Your task to perform on an android device: Turn off the flashlight Image 0: 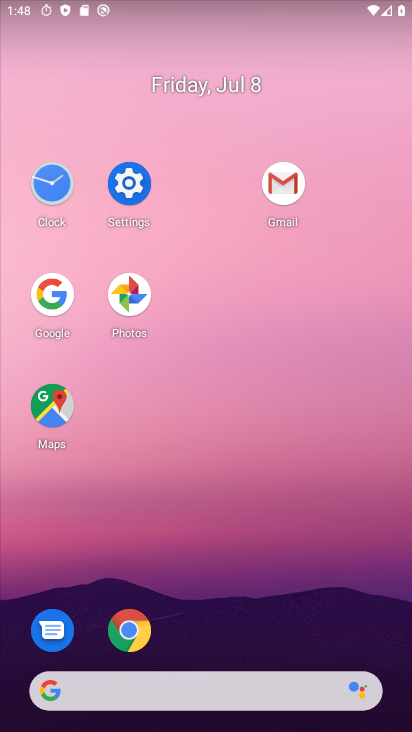
Step 0: drag from (329, 3) to (352, 485)
Your task to perform on an android device: Turn off the flashlight Image 1: 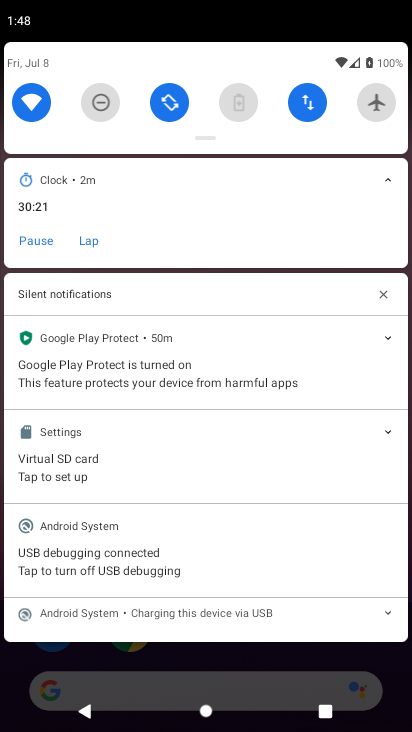
Step 1: task complete